Your task to perform on an android device: Go to battery settings Image 0: 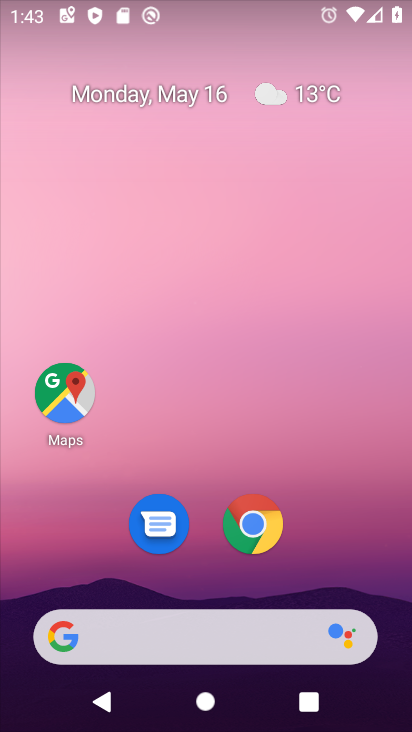
Step 0: drag from (273, 462) to (284, 6)
Your task to perform on an android device: Go to battery settings Image 1: 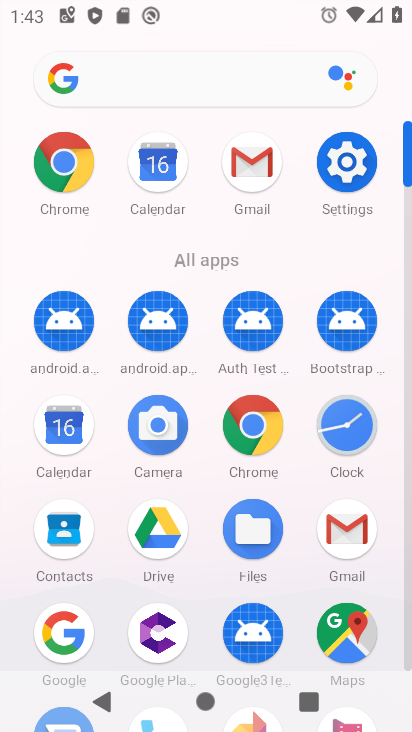
Step 1: click (342, 154)
Your task to perform on an android device: Go to battery settings Image 2: 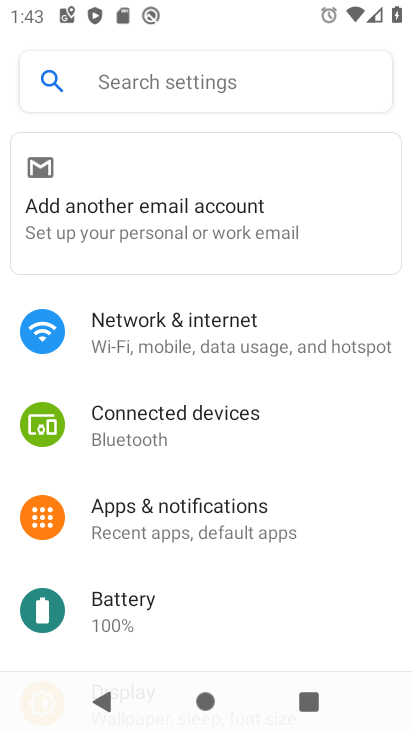
Step 2: click (168, 611)
Your task to perform on an android device: Go to battery settings Image 3: 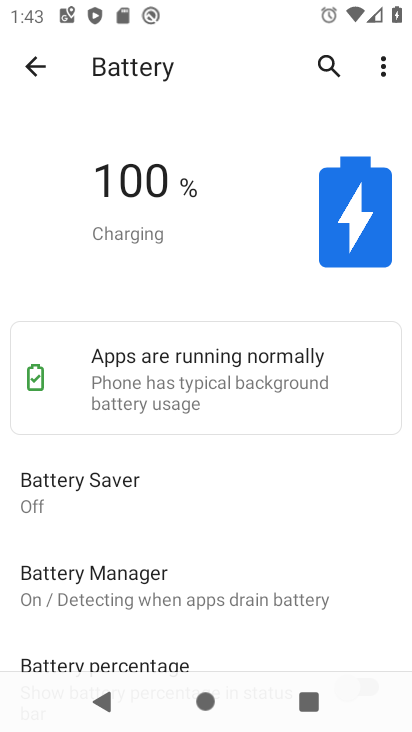
Step 3: task complete